Your task to perform on an android device: Go to CNN.com Image 0: 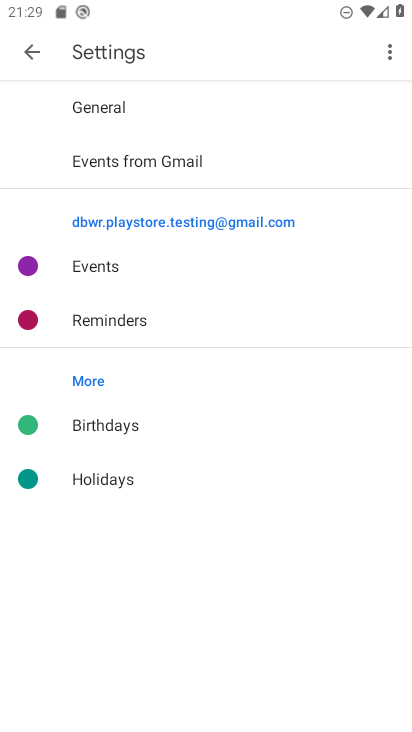
Step 0: press home button
Your task to perform on an android device: Go to CNN.com Image 1: 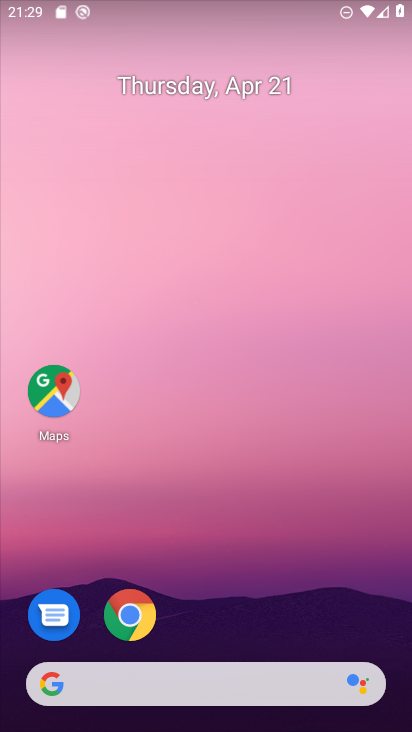
Step 1: click (130, 609)
Your task to perform on an android device: Go to CNN.com Image 2: 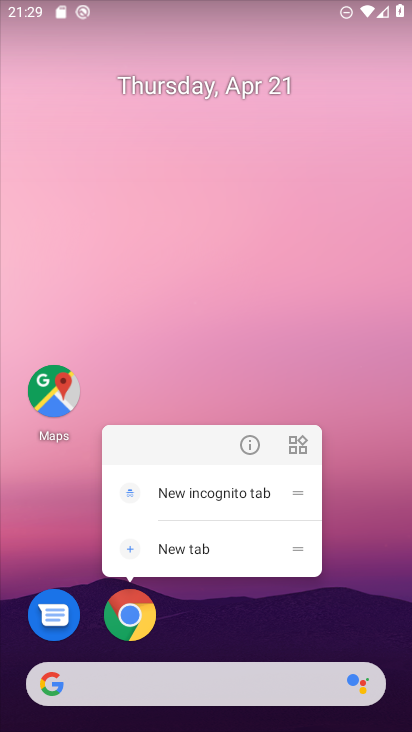
Step 2: click (247, 438)
Your task to perform on an android device: Go to CNN.com Image 3: 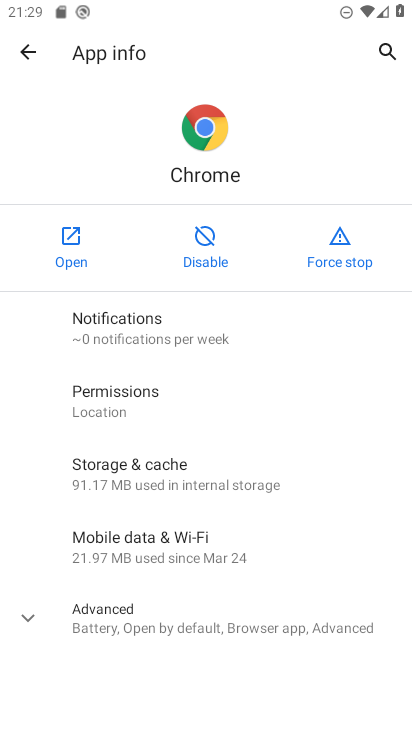
Step 3: click (74, 239)
Your task to perform on an android device: Go to CNN.com Image 4: 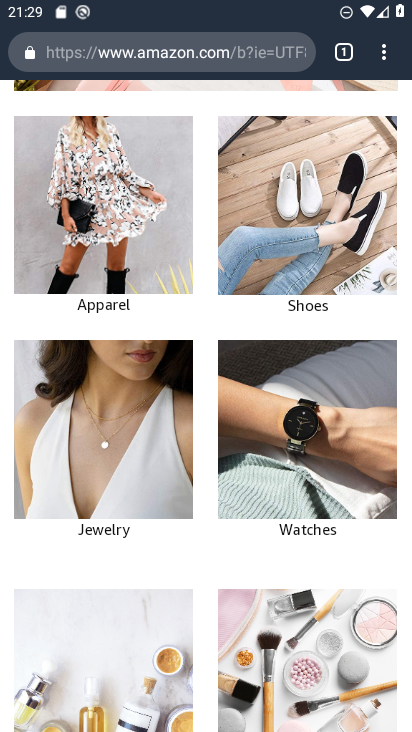
Step 4: drag from (257, 265) to (292, 588)
Your task to perform on an android device: Go to CNN.com Image 5: 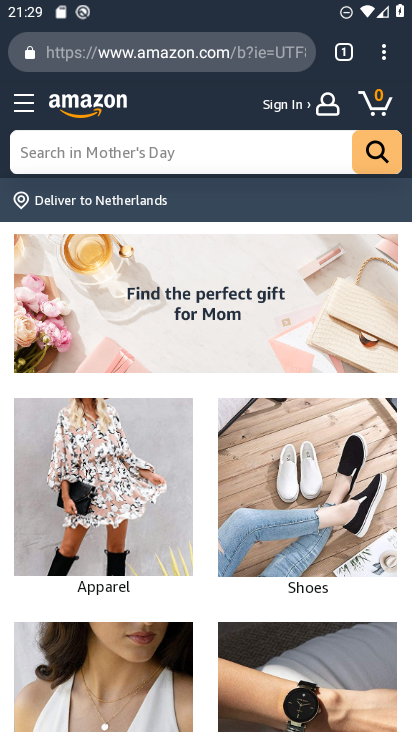
Step 5: click (183, 60)
Your task to perform on an android device: Go to CNN.com Image 6: 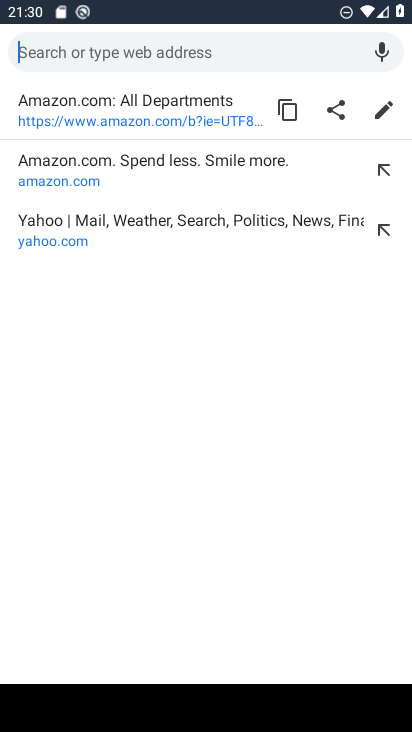
Step 6: type "cnn"
Your task to perform on an android device: Go to CNN.com Image 7: 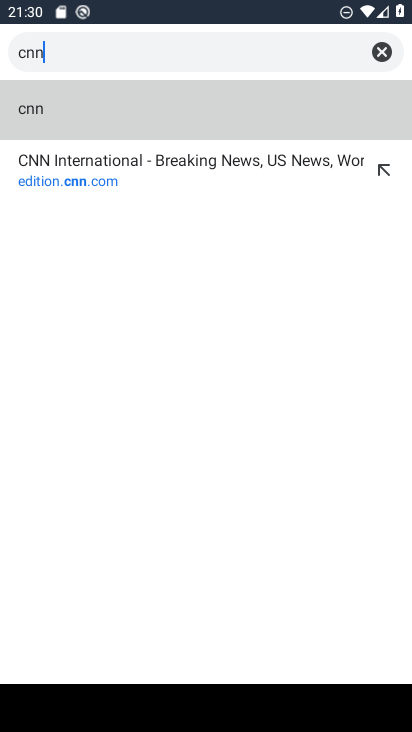
Step 7: click (67, 115)
Your task to perform on an android device: Go to CNN.com Image 8: 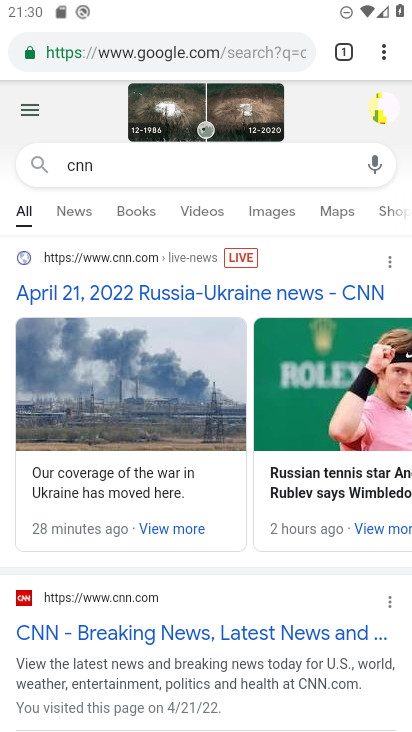
Step 8: click (174, 632)
Your task to perform on an android device: Go to CNN.com Image 9: 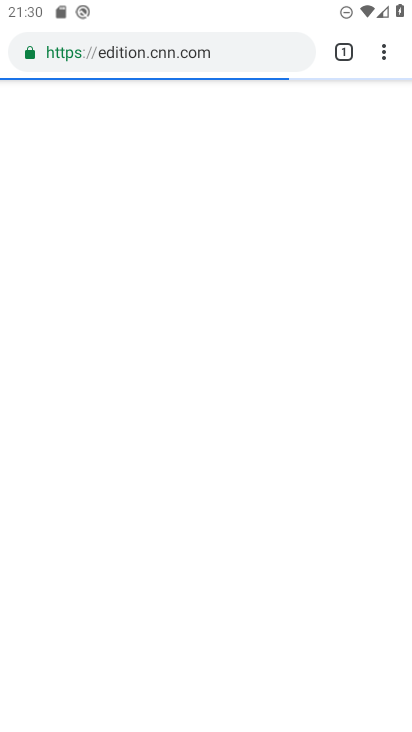
Step 9: task complete